Your task to perform on an android device: Search for razer naga on bestbuy.com, select the first entry, and add it to the cart. Image 0: 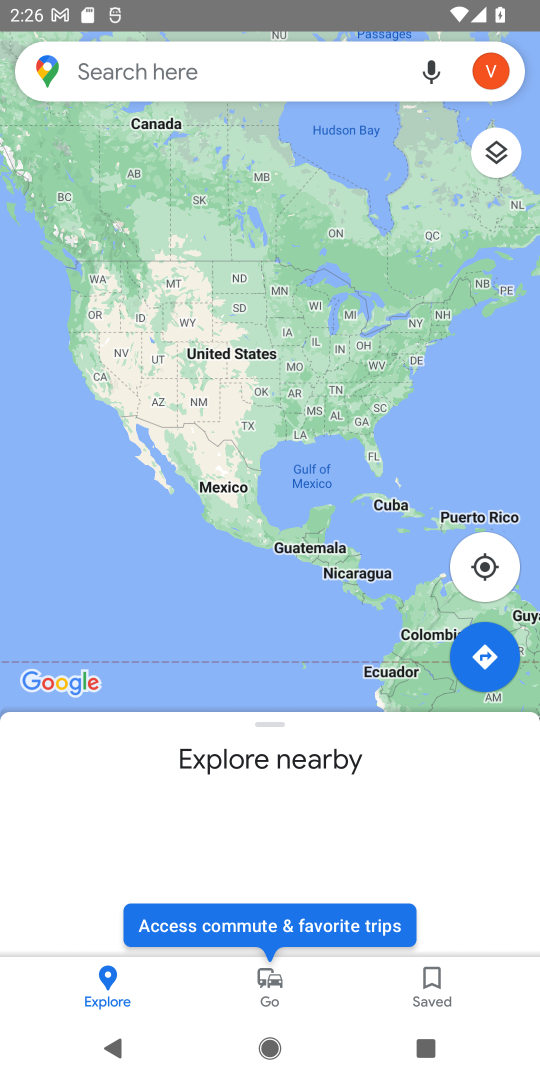
Step 0: press home button
Your task to perform on an android device: Search for razer naga on bestbuy.com, select the first entry, and add it to the cart. Image 1: 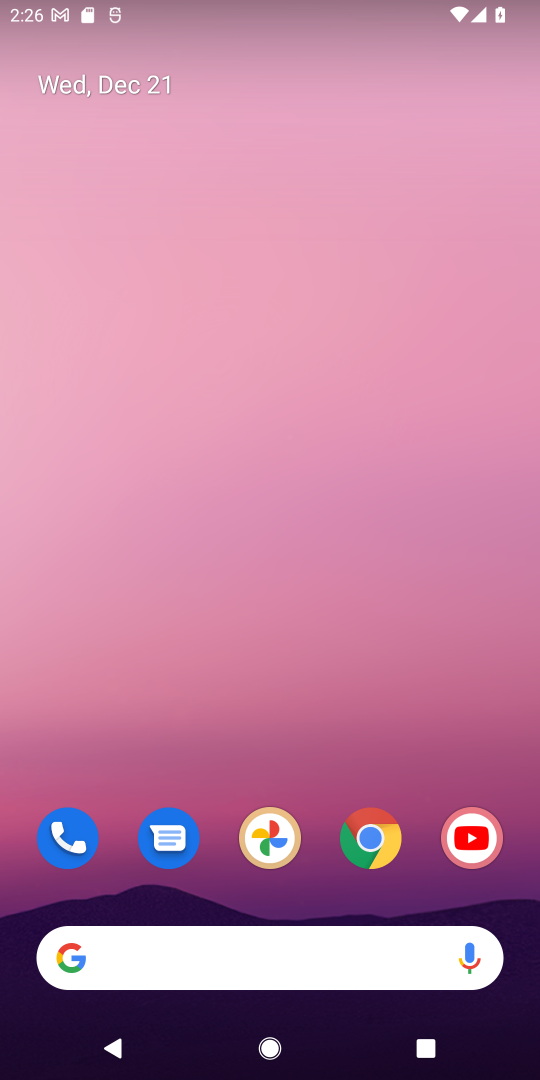
Step 1: click (388, 852)
Your task to perform on an android device: Search for razer naga on bestbuy.com, select the first entry, and add it to the cart. Image 2: 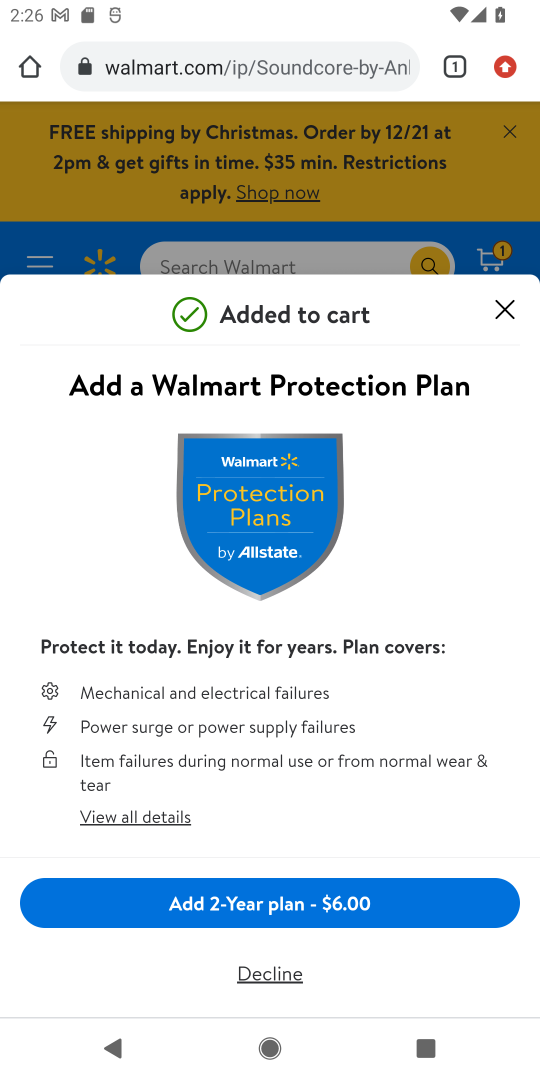
Step 2: click (498, 319)
Your task to perform on an android device: Search for razer naga on bestbuy.com, select the first entry, and add it to the cart. Image 3: 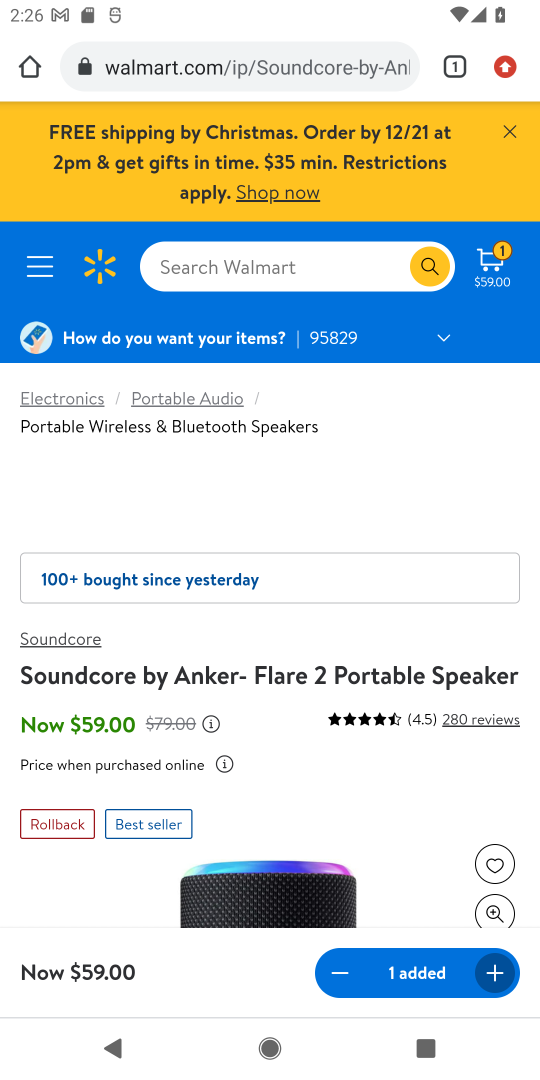
Step 3: click (281, 91)
Your task to perform on an android device: Search for razer naga on bestbuy.com, select the first entry, and add it to the cart. Image 4: 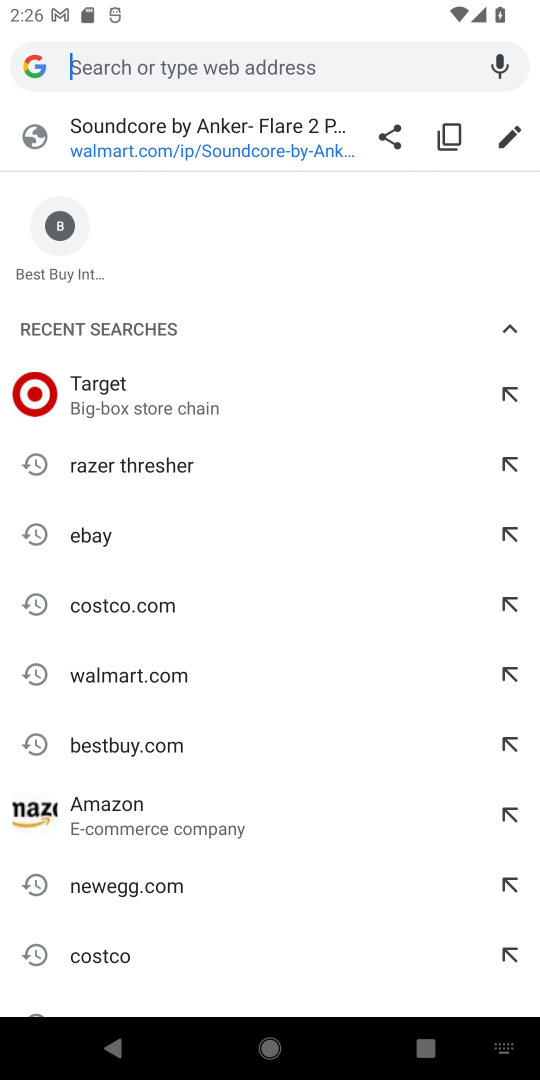
Step 4: click (188, 751)
Your task to perform on an android device: Search for razer naga on bestbuy.com, select the first entry, and add it to the cart. Image 5: 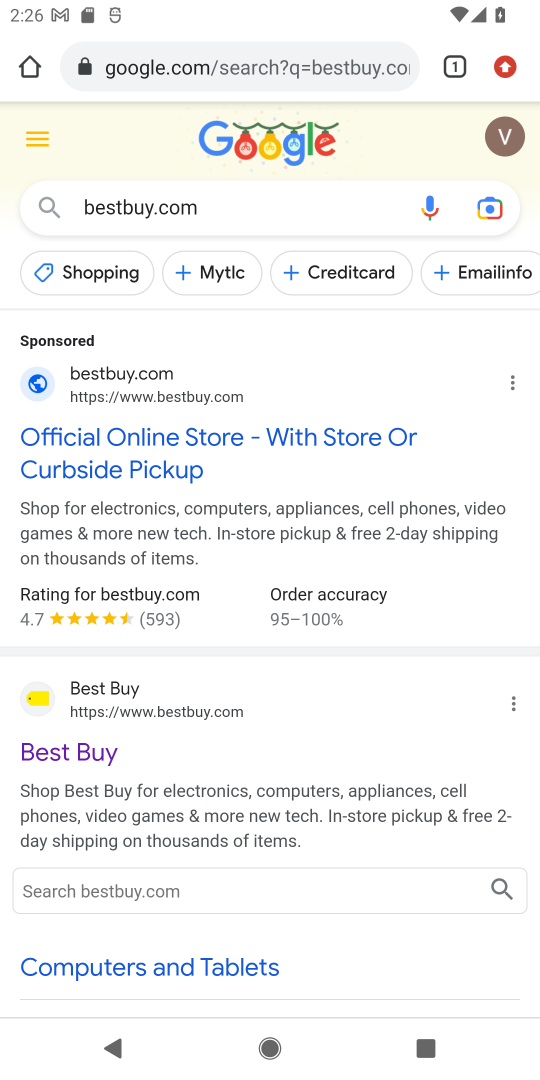
Step 5: click (171, 438)
Your task to perform on an android device: Search for razer naga on bestbuy.com, select the first entry, and add it to the cart. Image 6: 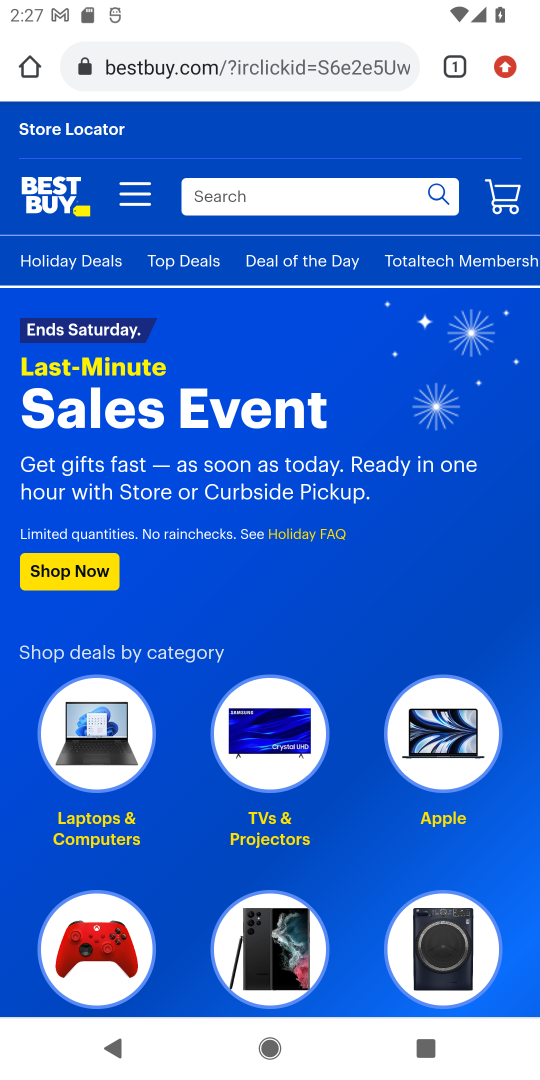
Step 6: click (282, 211)
Your task to perform on an android device: Search for razer naga on bestbuy.com, select the first entry, and add it to the cart. Image 7: 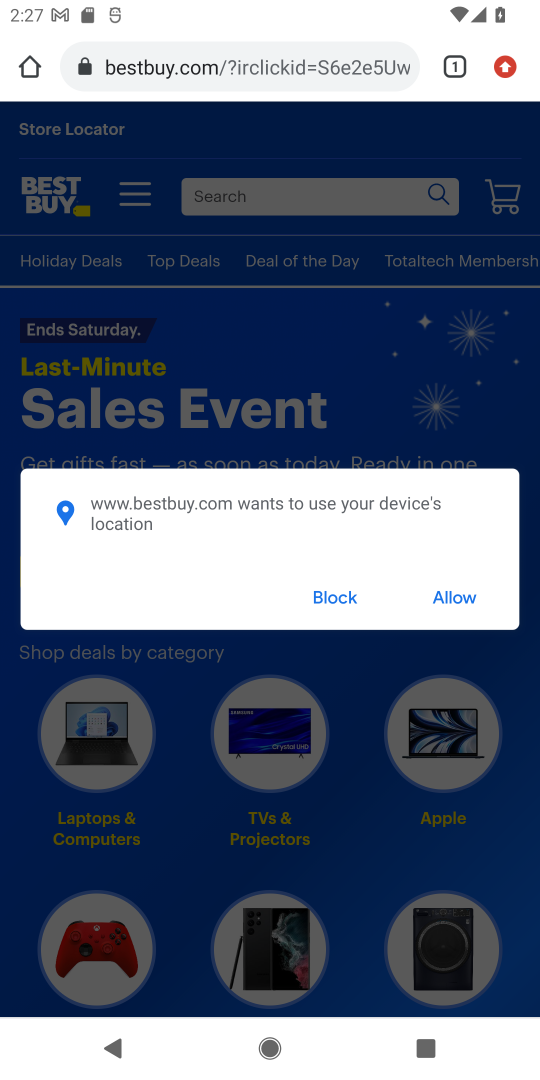
Step 7: type "razer naga"
Your task to perform on an android device: Search for razer naga on bestbuy.com, select the first entry, and add it to the cart. Image 8: 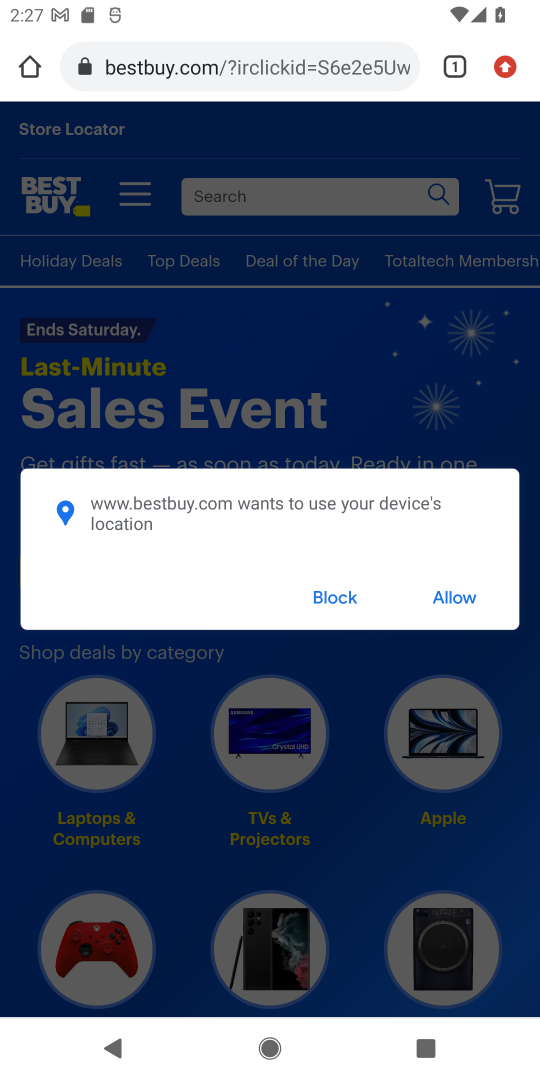
Step 8: click (433, 606)
Your task to perform on an android device: Search for razer naga on bestbuy.com, select the first entry, and add it to the cart. Image 9: 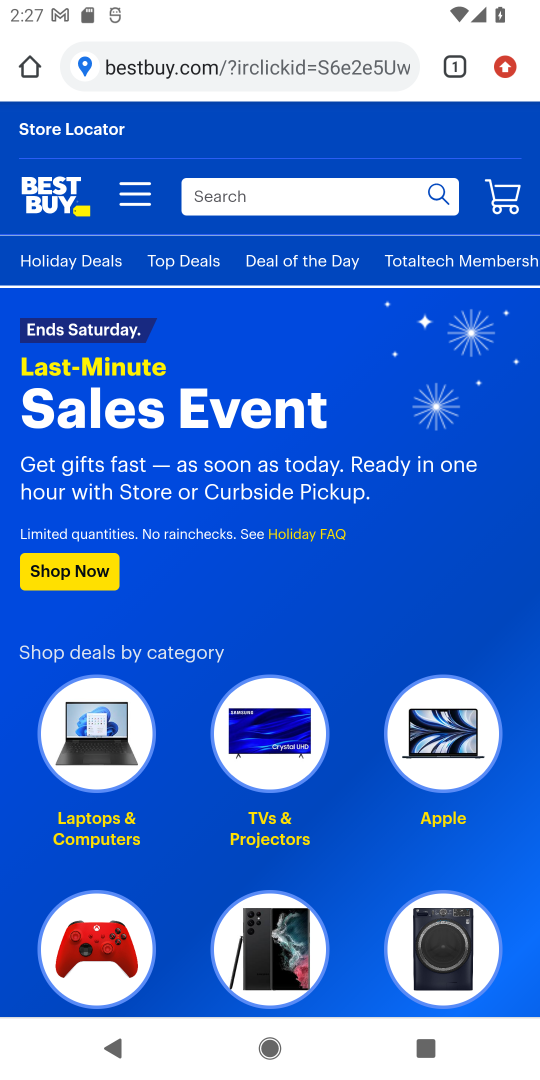
Step 9: click (321, 201)
Your task to perform on an android device: Search for razer naga on bestbuy.com, select the first entry, and add it to the cart. Image 10: 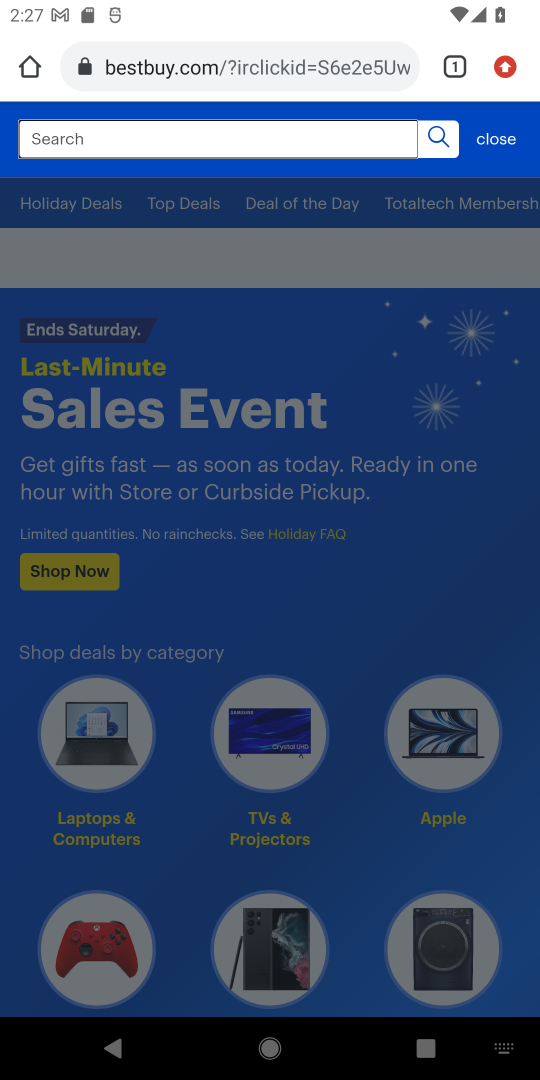
Step 10: type "razer naga"
Your task to perform on an android device: Search for razer naga on bestbuy.com, select the first entry, and add it to the cart. Image 11: 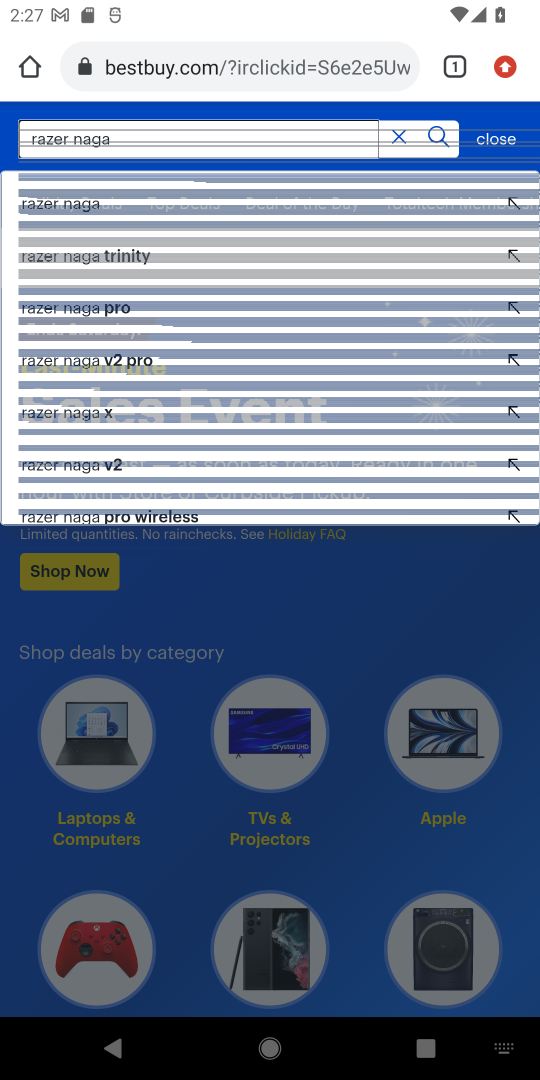
Step 11: click (96, 190)
Your task to perform on an android device: Search for razer naga on bestbuy.com, select the first entry, and add it to the cart. Image 12: 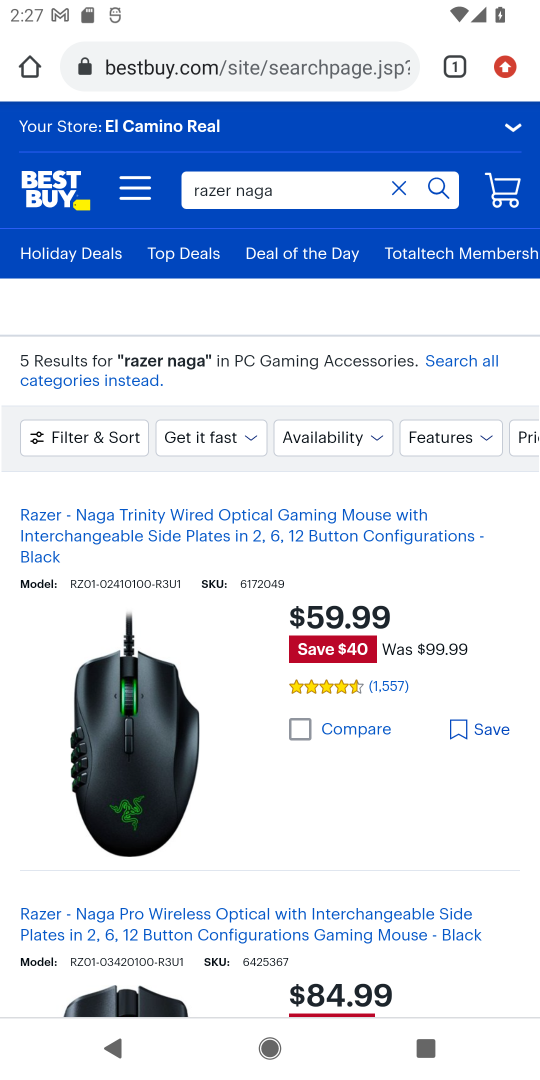
Step 12: click (202, 706)
Your task to perform on an android device: Search for razer naga on bestbuy.com, select the first entry, and add it to the cart. Image 13: 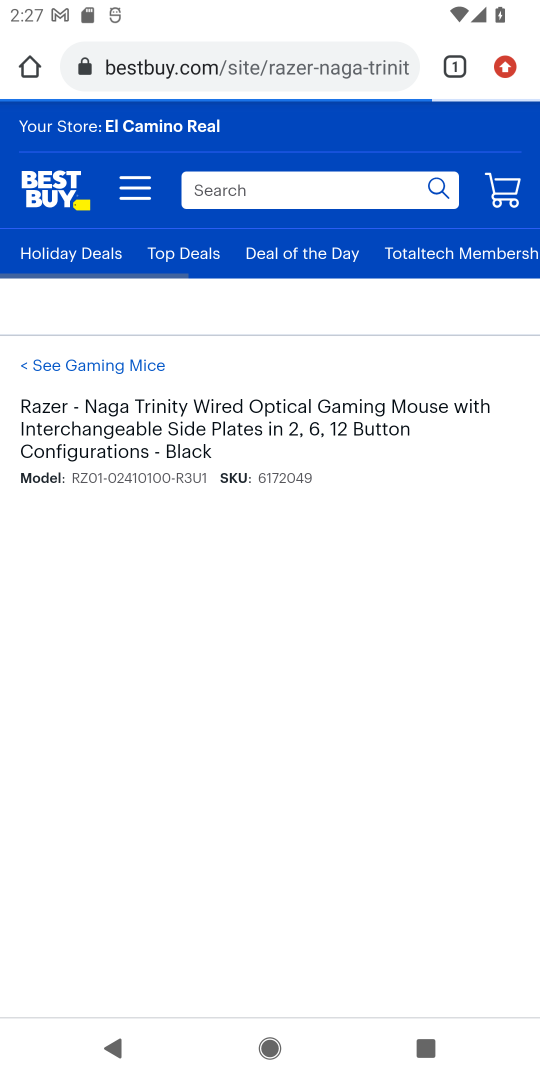
Step 13: click (332, 727)
Your task to perform on an android device: Search for razer naga on bestbuy.com, select the first entry, and add it to the cart. Image 14: 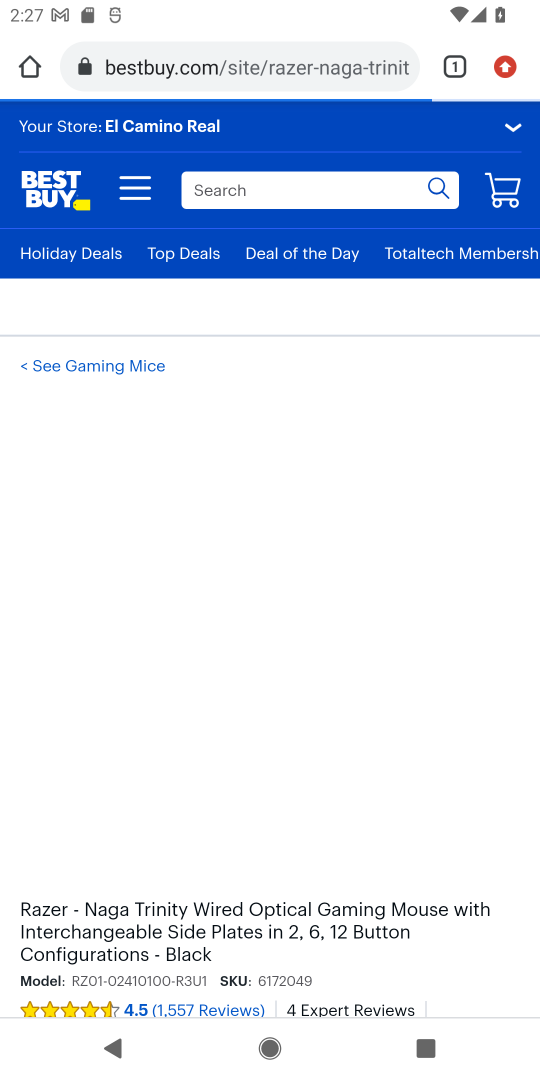
Step 14: task complete